Your task to perform on an android device: Find coffee shops on Maps Image 0: 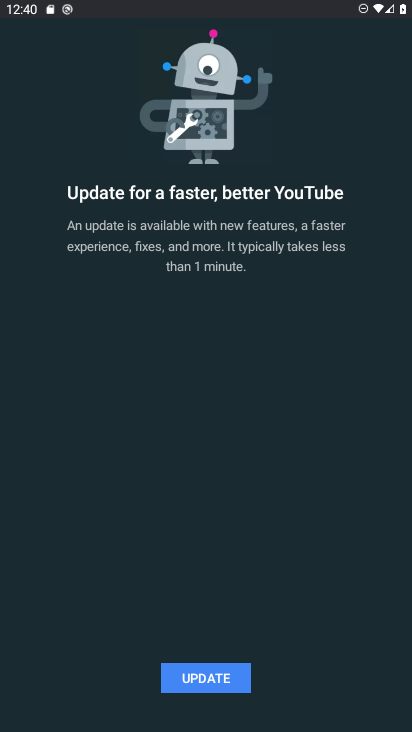
Step 0: press home button
Your task to perform on an android device: Find coffee shops on Maps Image 1: 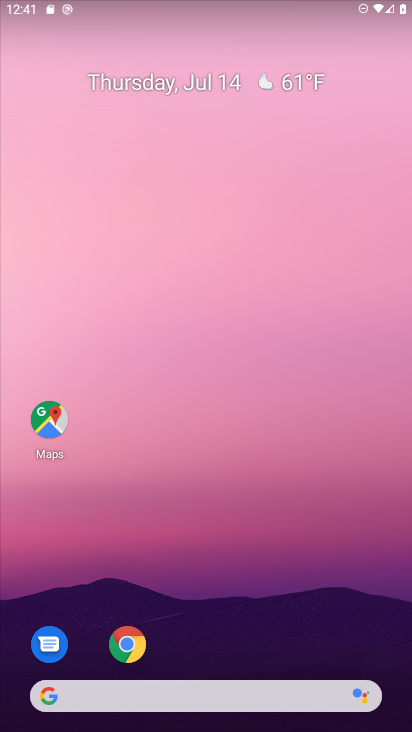
Step 1: drag from (243, 610) to (72, 87)
Your task to perform on an android device: Find coffee shops on Maps Image 2: 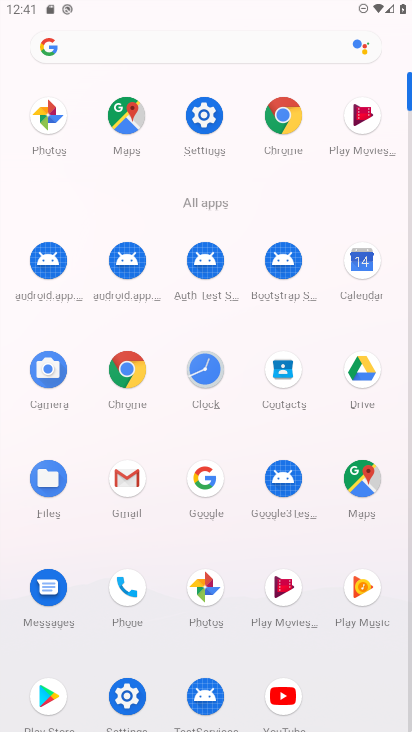
Step 2: click (361, 483)
Your task to perform on an android device: Find coffee shops on Maps Image 3: 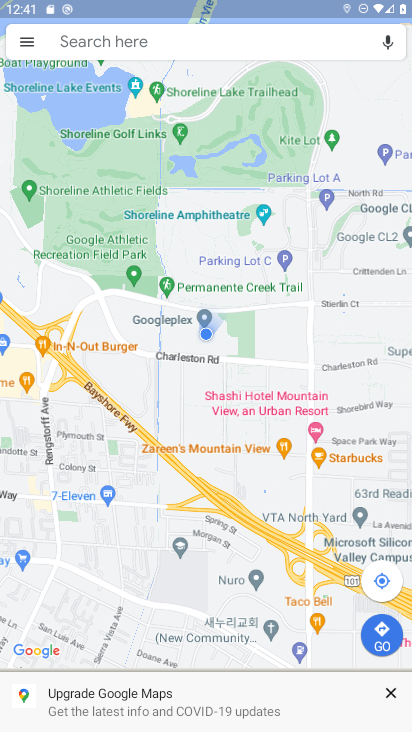
Step 3: click (185, 43)
Your task to perform on an android device: Find coffee shops on Maps Image 4: 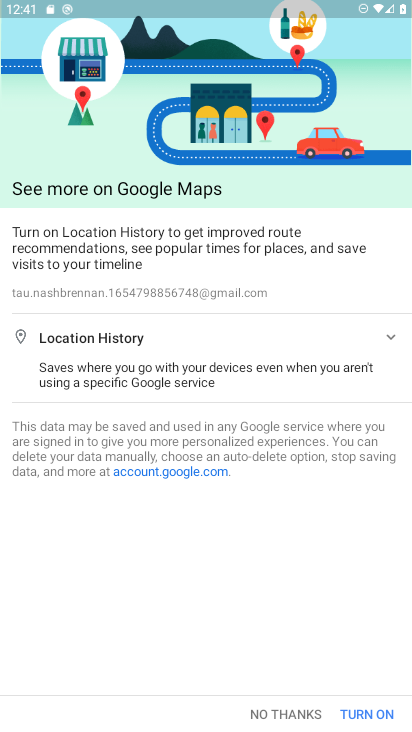
Step 4: click (293, 714)
Your task to perform on an android device: Find coffee shops on Maps Image 5: 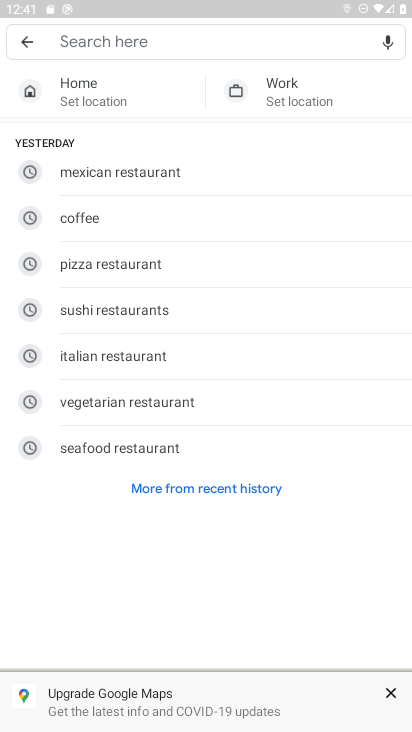
Step 5: click (138, 42)
Your task to perform on an android device: Find coffee shops on Maps Image 6: 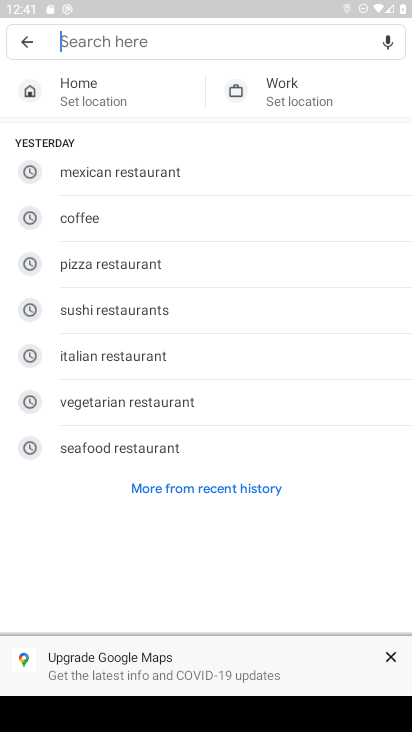
Step 6: type "coffee shops"
Your task to perform on an android device: Find coffee shops on Maps Image 7: 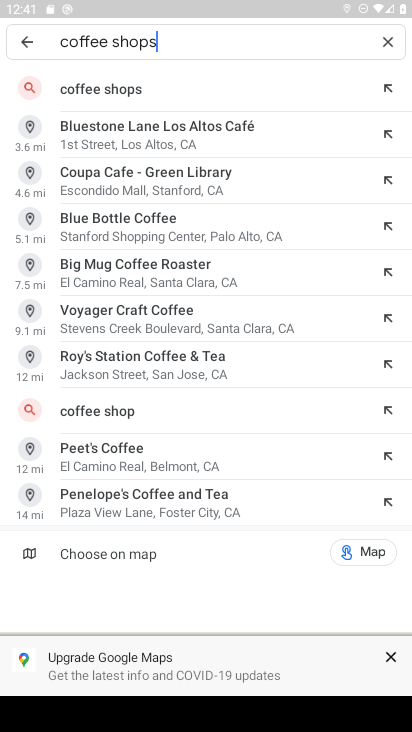
Step 7: click (124, 82)
Your task to perform on an android device: Find coffee shops on Maps Image 8: 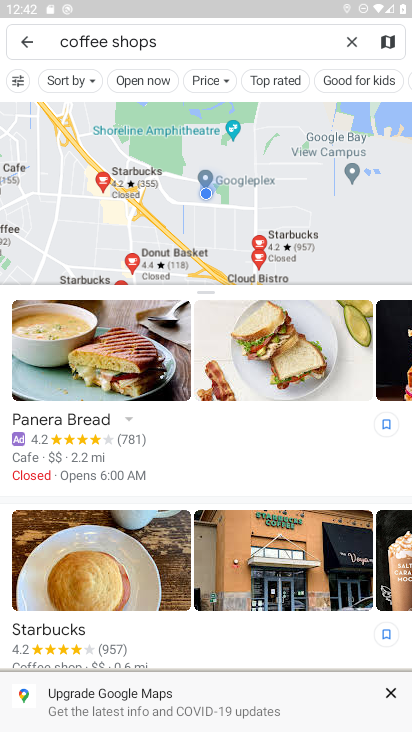
Step 8: task complete